Your task to perform on an android device: Open Google Maps Image 0: 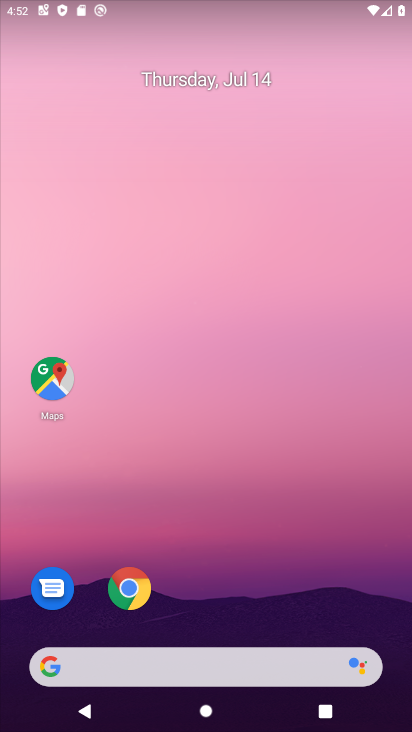
Step 0: click (52, 381)
Your task to perform on an android device: Open Google Maps Image 1: 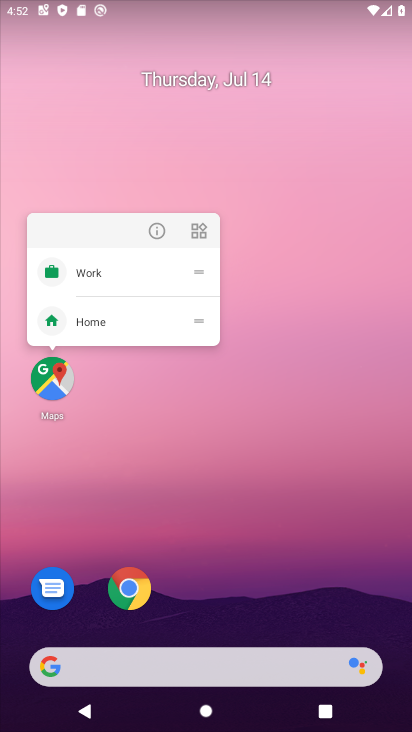
Step 1: click (49, 394)
Your task to perform on an android device: Open Google Maps Image 2: 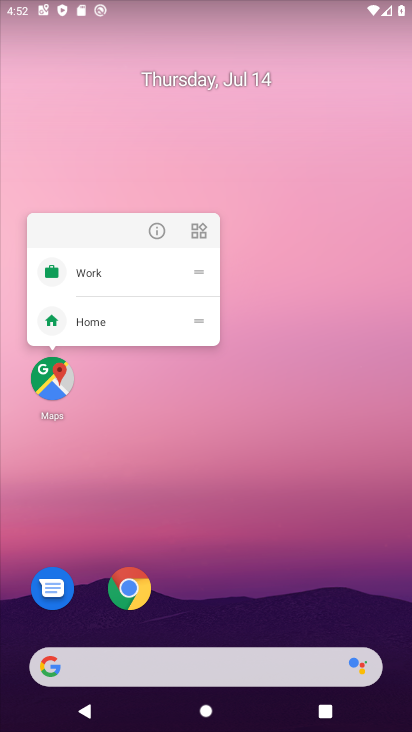
Step 2: click (46, 377)
Your task to perform on an android device: Open Google Maps Image 3: 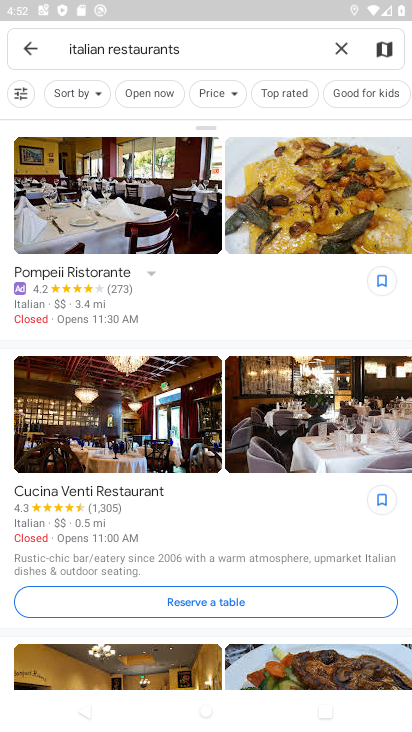
Step 3: click (332, 50)
Your task to perform on an android device: Open Google Maps Image 4: 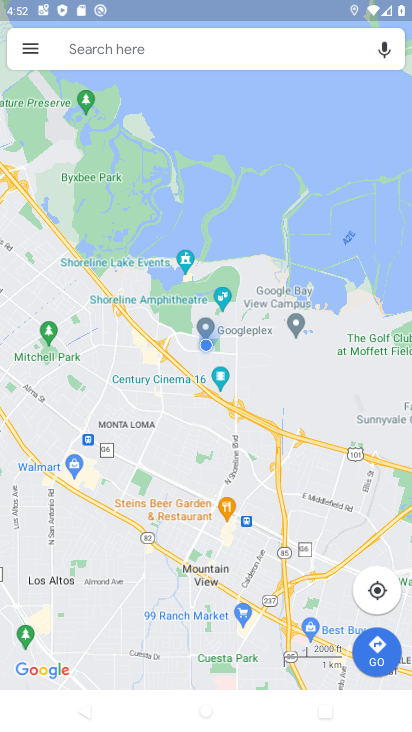
Step 4: task complete